Your task to perform on an android device: all mails in gmail Image 0: 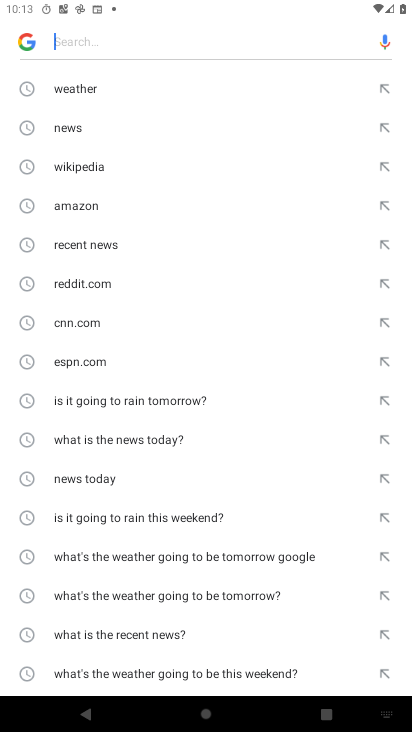
Step 0: press home button
Your task to perform on an android device: all mails in gmail Image 1: 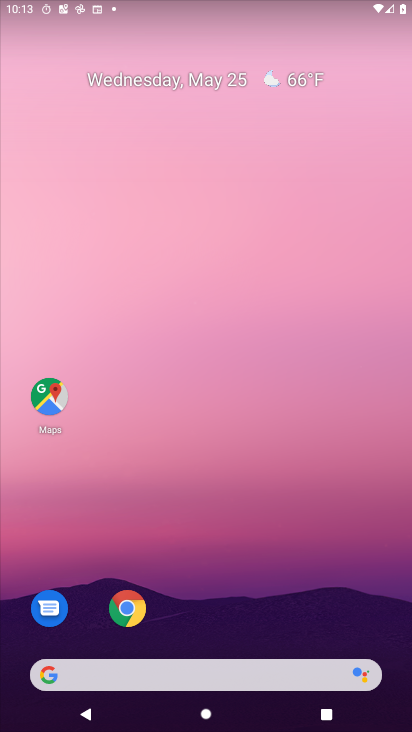
Step 1: drag from (231, 723) to (231, 50)
Your task to perform on an android device: all mails in gmail Image 2: 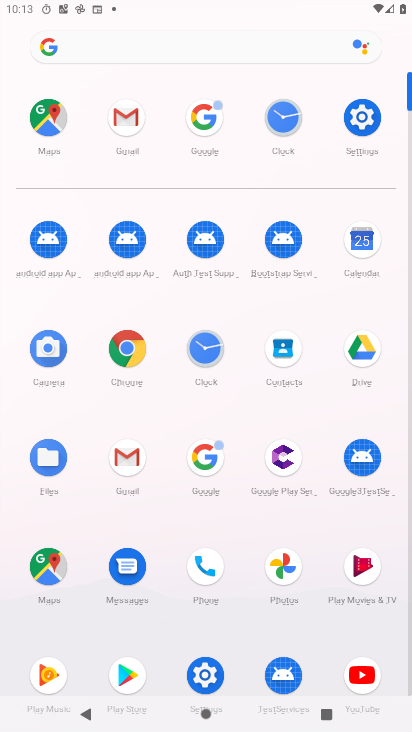
Step 2: click (134, 454)
Your task to perform on an android device: all mails in gmail Image 3: 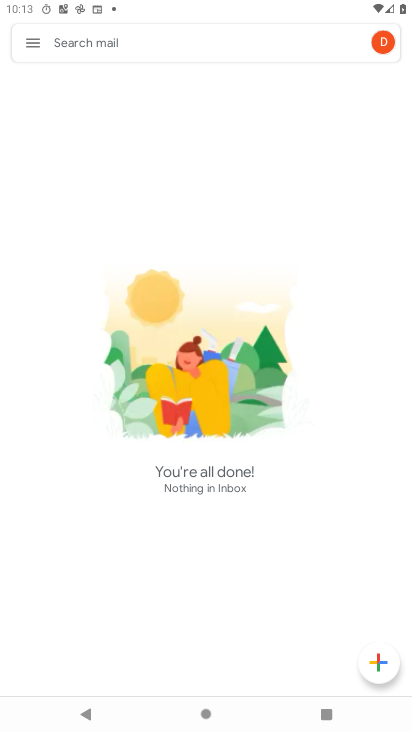
Step 3: click (34, 45)
Your task to perform on an android device: all mails in gmail Image 4: 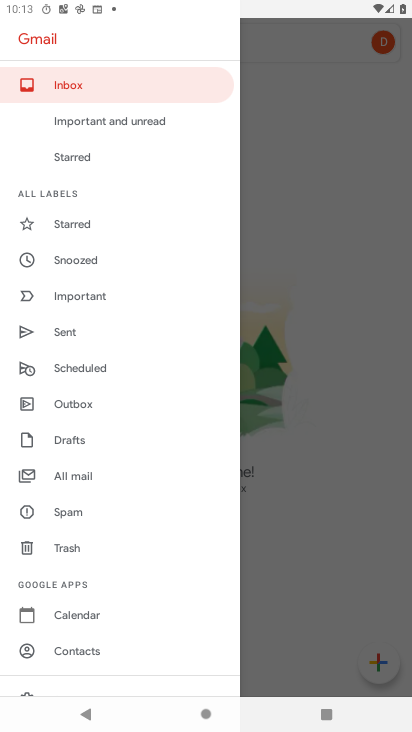
Step 4: click (71, 472)
Your task to perform on an android device: all mails in gmail Image 5: 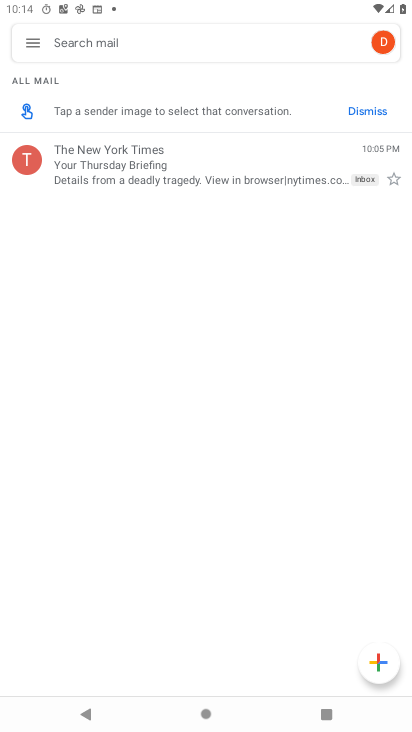
Step 5: click (32, 44)
Your task to perform on an android device: all mails in gmail Image 6: 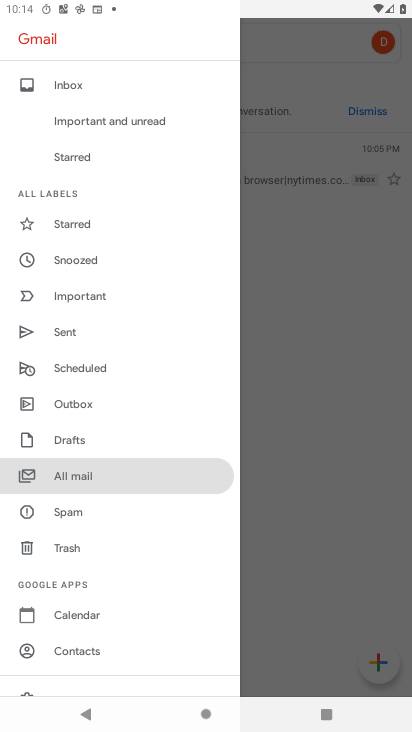
Step 6: click (89, 474)
Your task to perform on an android device: all mails in gmail Image 7: 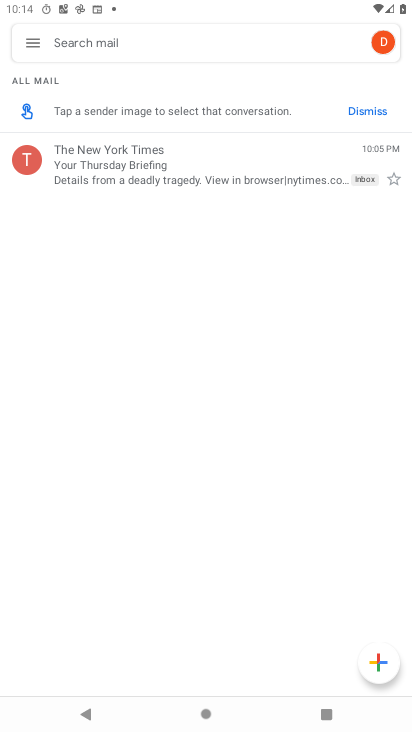
Step 7: task complete